Your task to perform on an android device: turn pop-ups on in chrome Image 0: 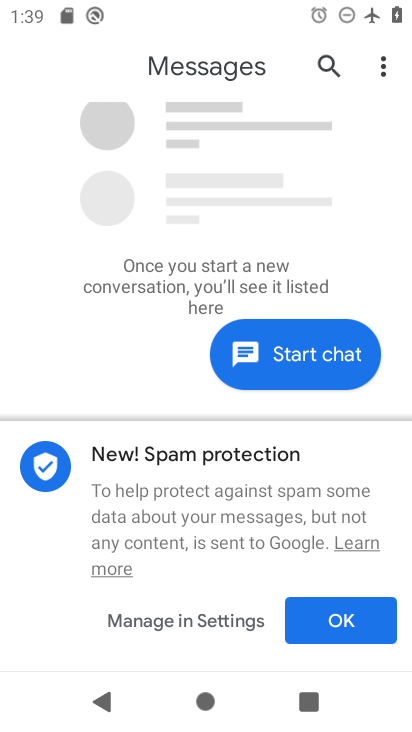
Step 0: press home button
Your task to perform on an android device: turn pop-ups on in chrome Image 1: 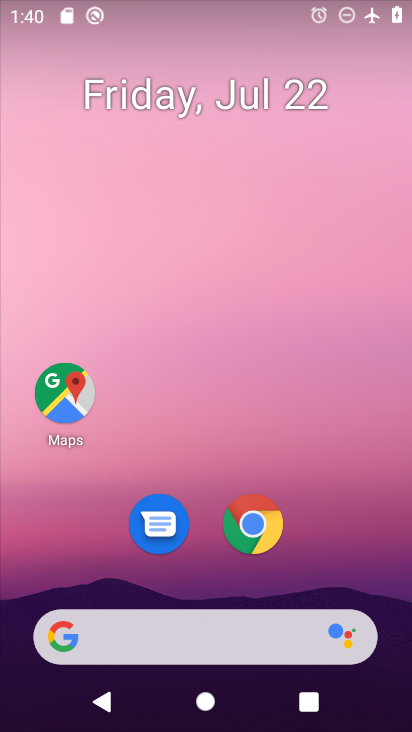
Step 1: click (265, 520)
Your task to perform on an android device: turn pop-ups on in chrome Image 2: 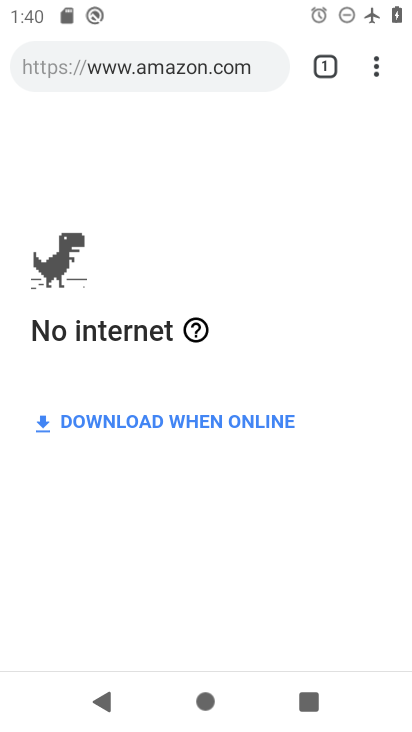
Step 2: click (376, 69)
Your task to perform on an android device: turn pop-ups on in chrome Image 3: 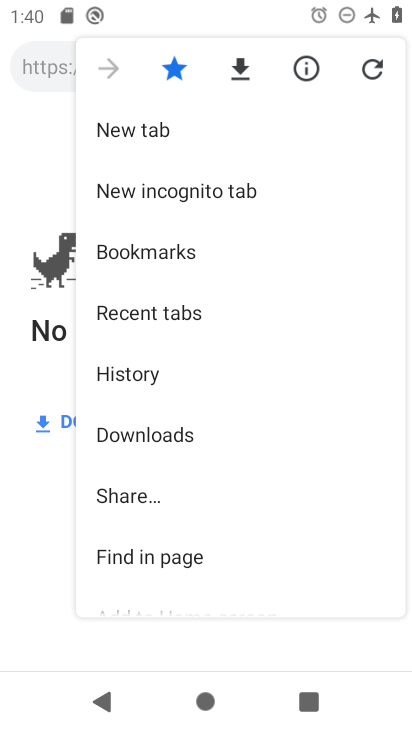
Step 3: drag from (248, 523) to (291, 207)
Your task to perform on an android device: turn pop-ups on in chrome Image 4: 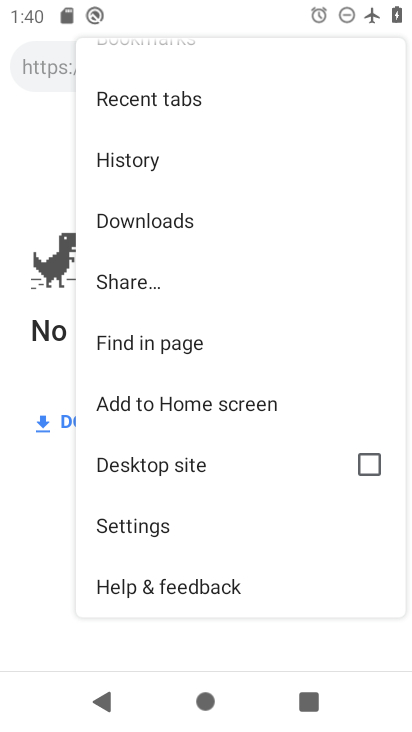
Step 4: click (148, 517)
Your task to perform on an android device: turn pop-ups on in chrome Image 5: 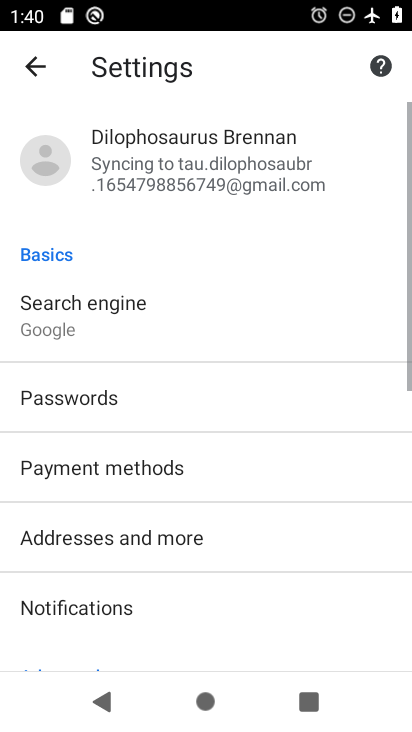
Step 5: drag from (199, 509) to (235, 217)
Your task to perform on an android device: turn pop-ups on in chrome Image 6: 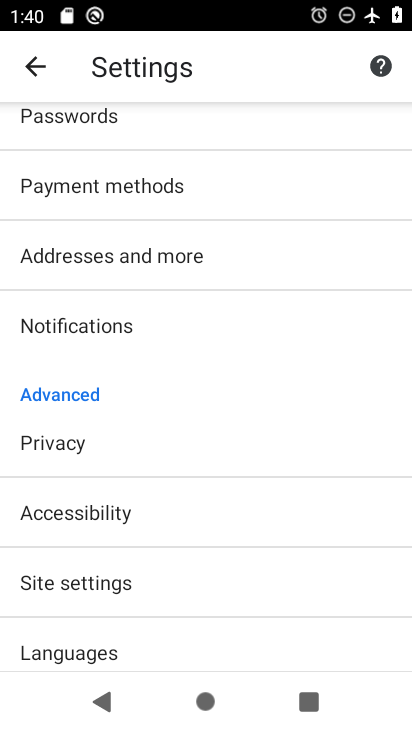
Step 6: click (118, 573)
Your task to perform on an android device: turn pop-ups on in chrome Image 7: 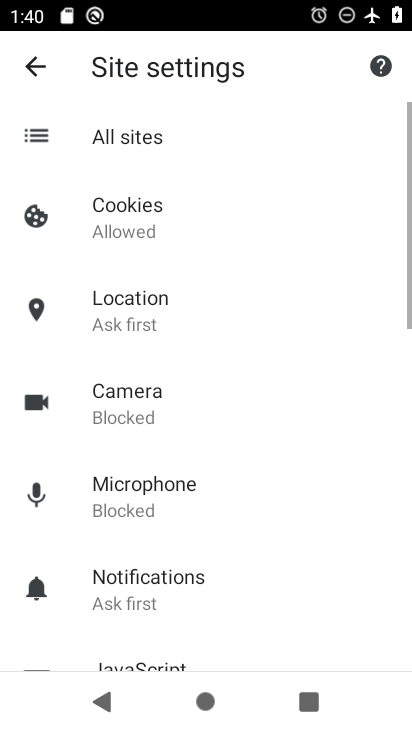
Step 7: drag from (267, 550) to (304, 245)
Your task to perform on an android device: turn pop-ups on in chrome Image 8: 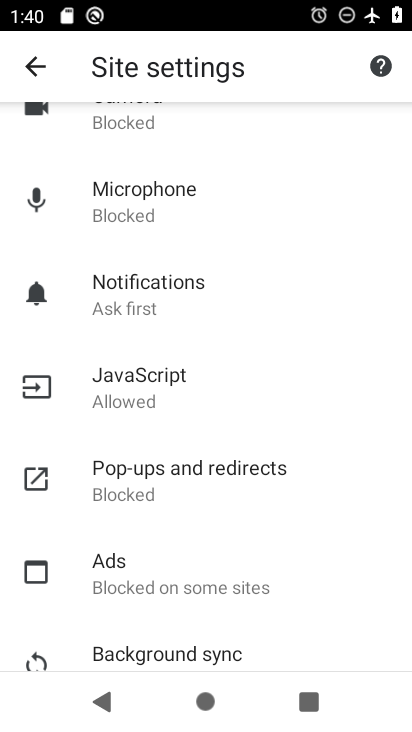
Step 8: click (214, 460)
Your task to perform on an android device: turn pop-ups on in chrome Image 9: 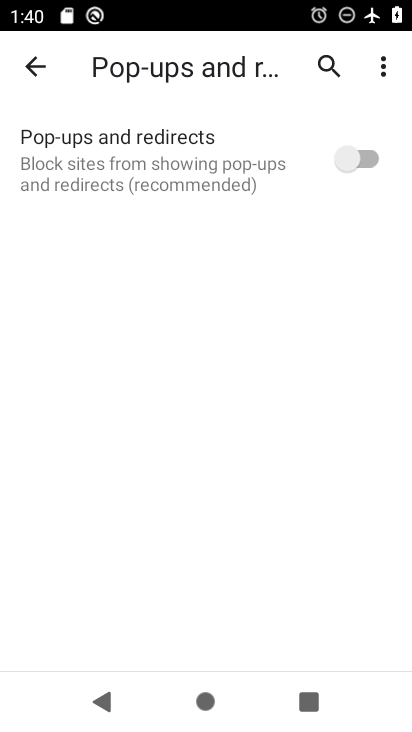
Step 9: click (357, 150)
Your task to perform on an android device: turn pop-ups on in chrome Image 10: 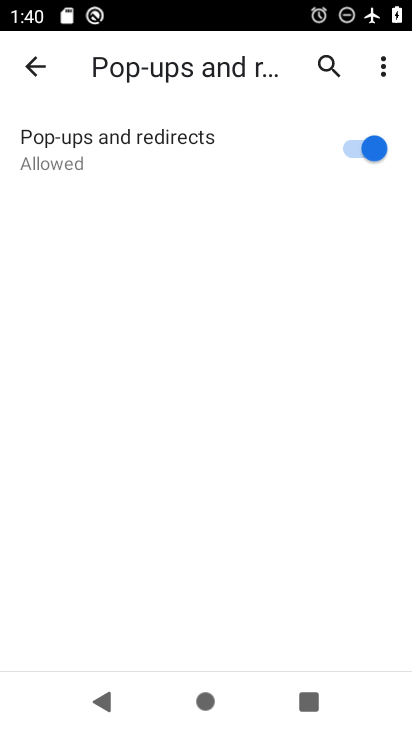
Step 10: task complete